Your task to perform on an android device: find which apps use the phone's location Image 0: 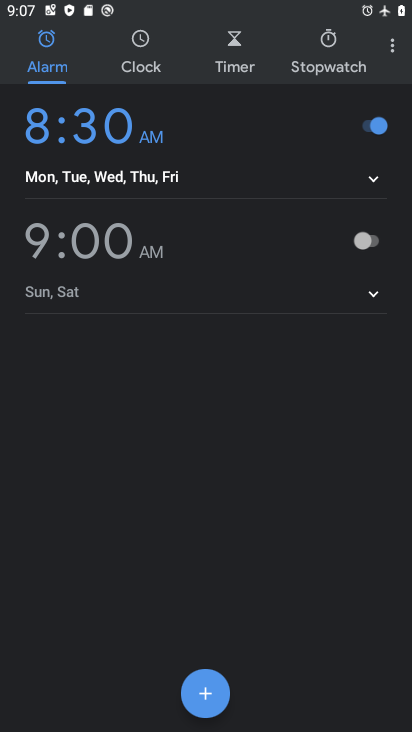
Step 0: press home button
Your task to perform on an android device: find which apps use the phone's location Image 1: 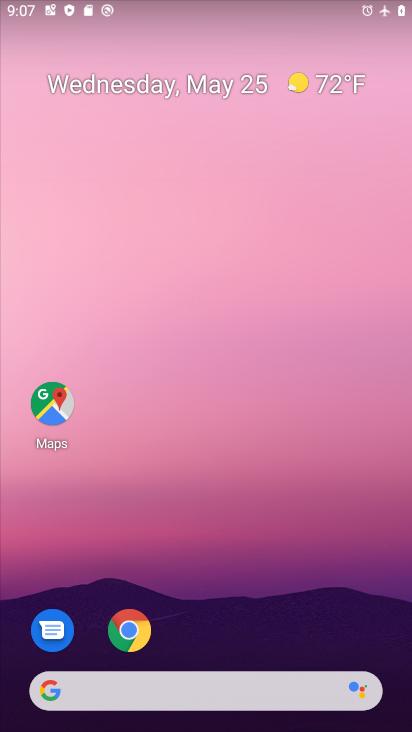
Step 1: drag from (219, 630) to (223, 163)
Your task to perform on an android device: find which apps use the phone's location Image 2: 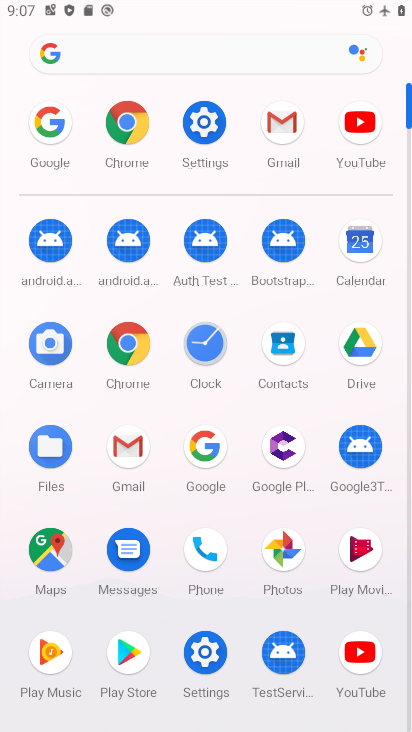
Step 2: click (204, 119)
Your task to perform on an android device: find which apps use the phone's location Image 3: 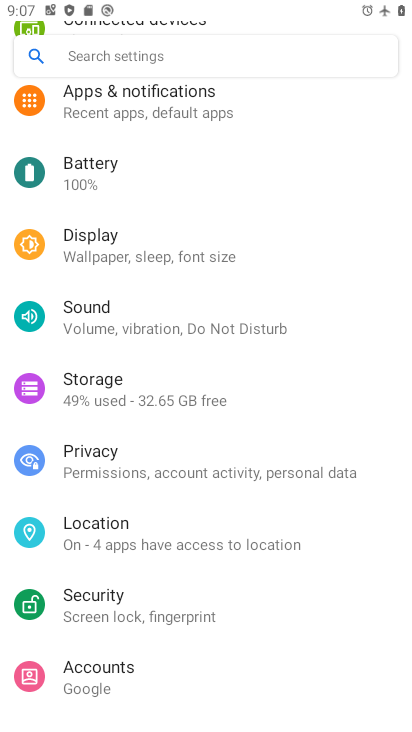
Step 3: click (162, 530)
Your task to perform on an android device: find which apps use the phone's location Image 4: 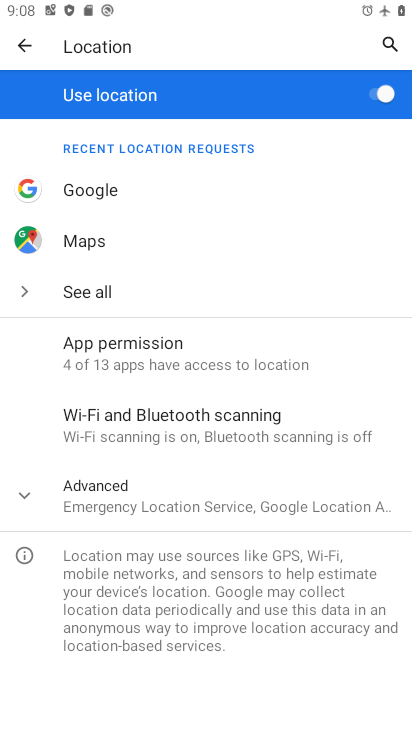
Step 4: click (139, 342)
Your task to perform on an android device: find which apps use the phone's location Image 5: 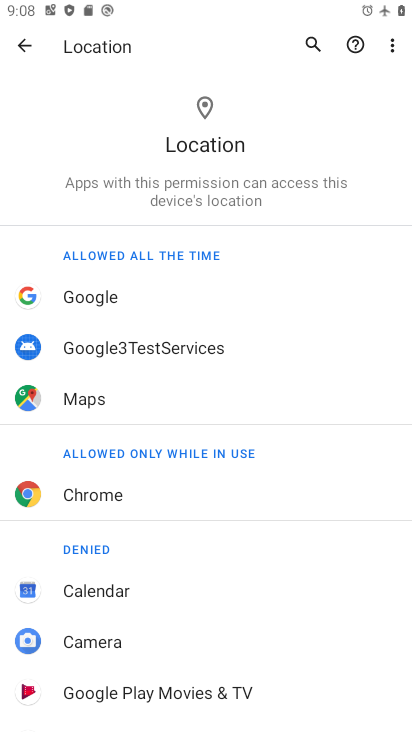
Step 5: task complete